Your task to perform on an android device: open chrome privacy settings Image 0: 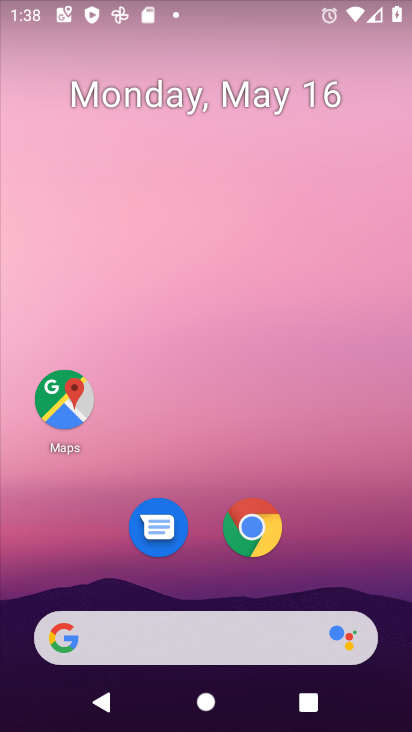
Step 0: click (257, 520)
Your task to perform on an android device: open chrome privacy settings Image 1: 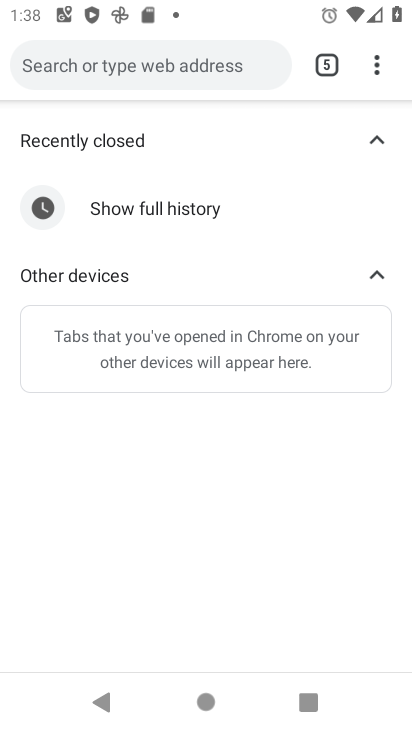
Step 1: click (377, 73)
Your task to perform on an android device: open chrome privacy settings Image 2: 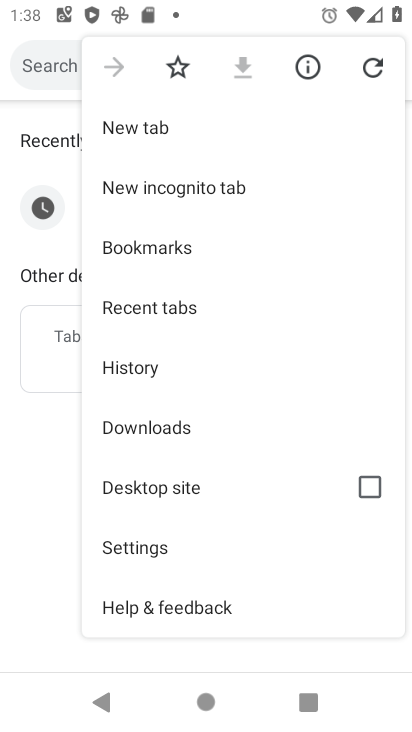
Step 2: click (209, 551)
Your task to perform on an android device: open chrome privacy settings Image 3: 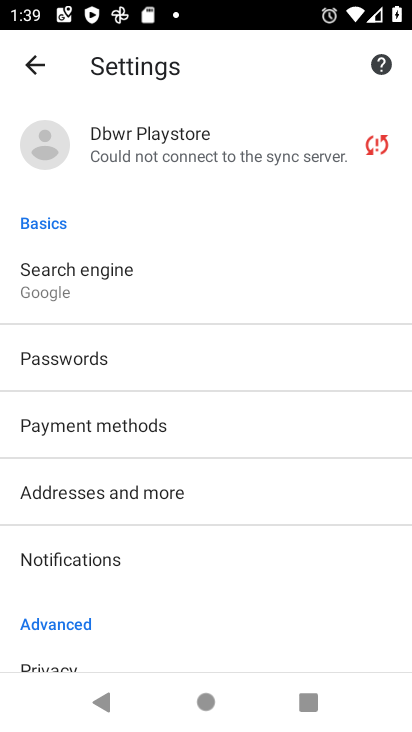
Step 3: click (145, 648)
Your task to perform on an android device: open chrome privacy settings Image 4: 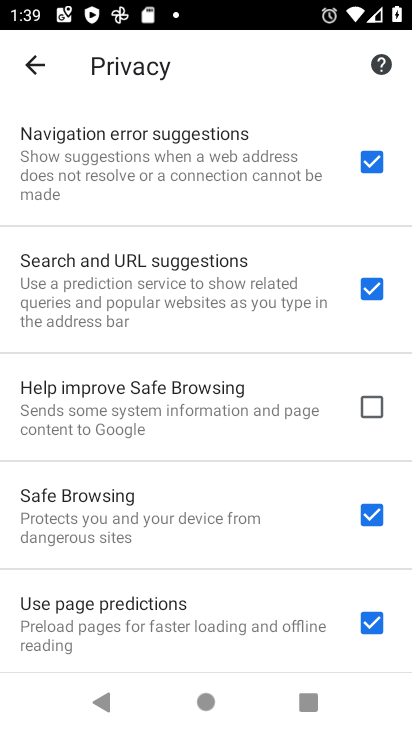
Step 4: task complete